Your task to perform on an android device: remove spam from my inbox in the gmail app Image 0: 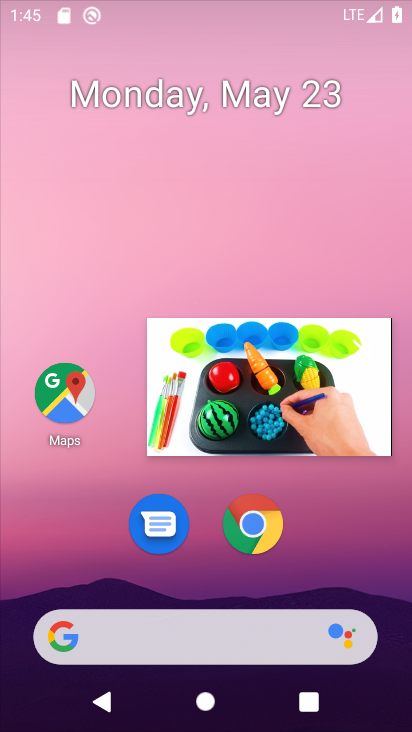
Step 0: drag from (319, 337) to (256, 719)
Your task to perform on an android device: remove spam from my inbox in the gmail app Image 1: 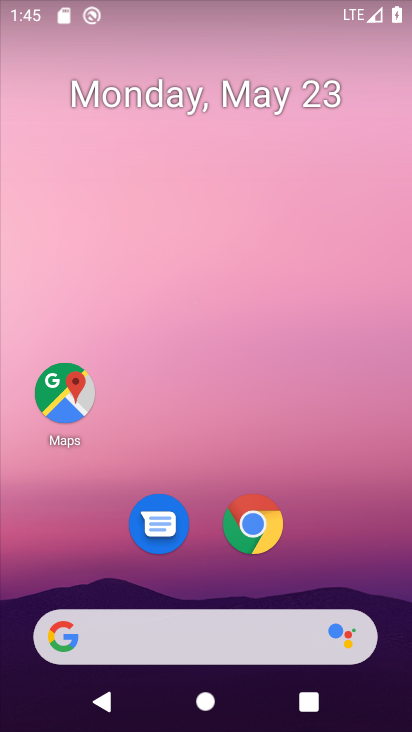
Step 1: drag from (237, 470) to (299, 10)
Your task to perform on an android device: remove spam from my inbox in the gmail app Image 2: 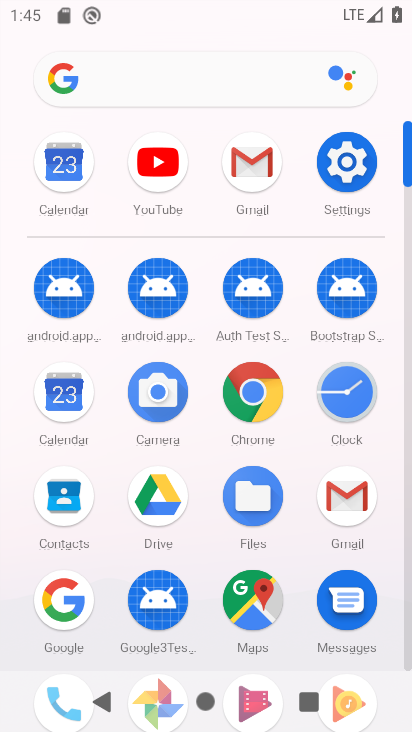
Step 2: click (259, 163)
Your task to perform on an android device: remove spam from my inbox in the gmail app Image 3: 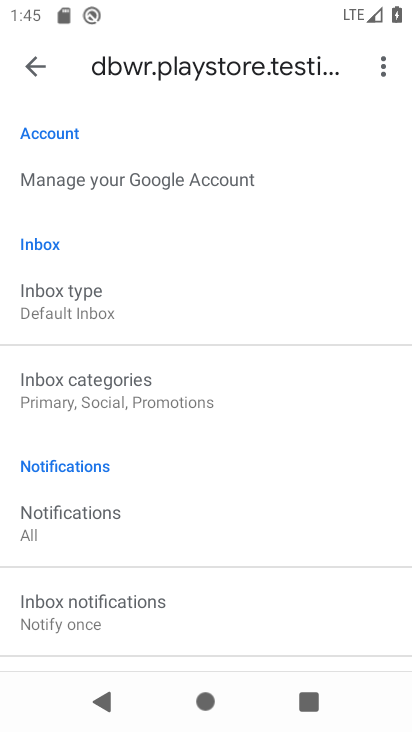
Step 3: click (37, 64)
Your task to perform on an android device: remove spam from my inbox in the gmail app Image 4: 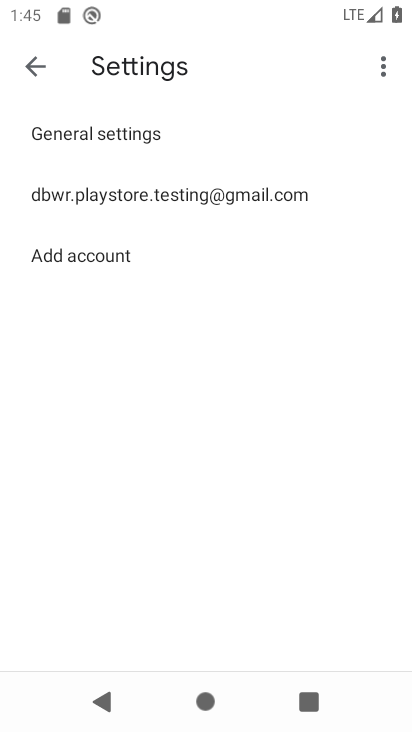
Step 4: click (37, 57)
Your task to perform on an android device: remove spam from my inbox in the gmail app Image 5: 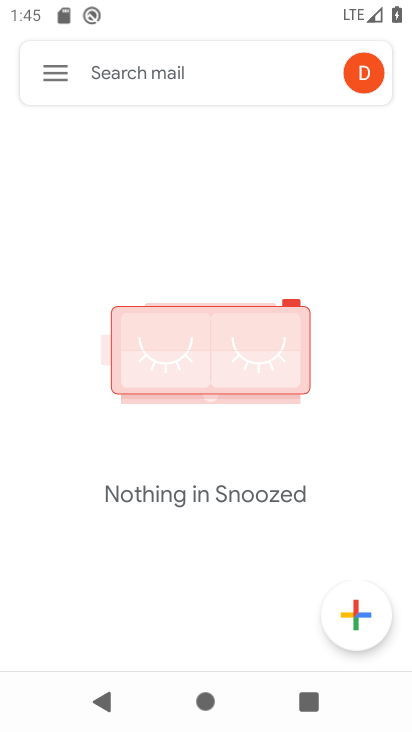
Step 5: click (48, 69)
Your task to perform on an android device: remove spam from my inbox in the gmail app Image 6: 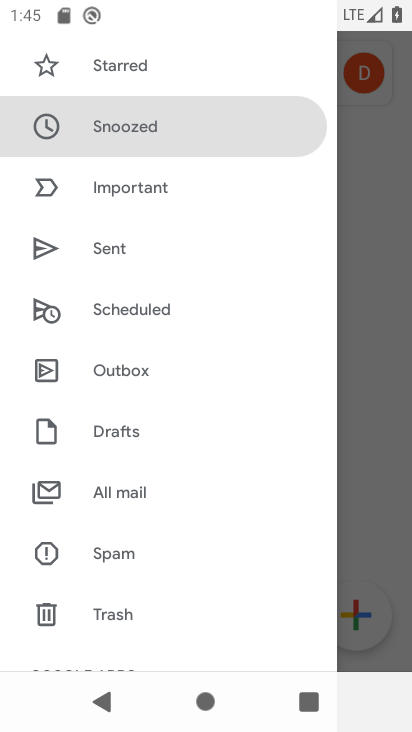
Step 6: click (129, 552)
Your task to perform on an android device: remove spam from my inbox in the gmail app Image 7: 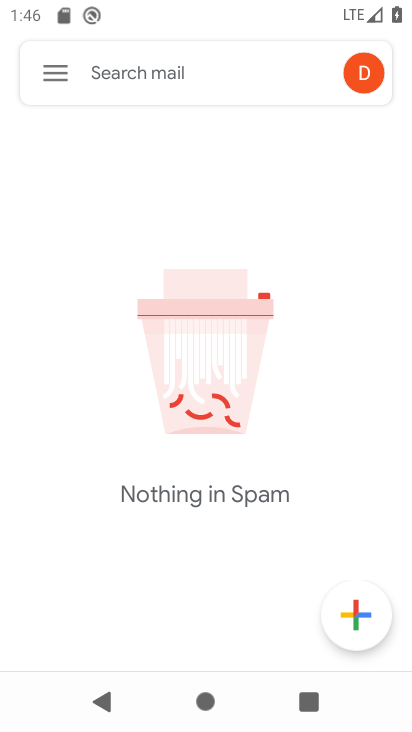
Step 7: task complete